Your task to perform on an android device: change your default location settings in chrome Image 0: 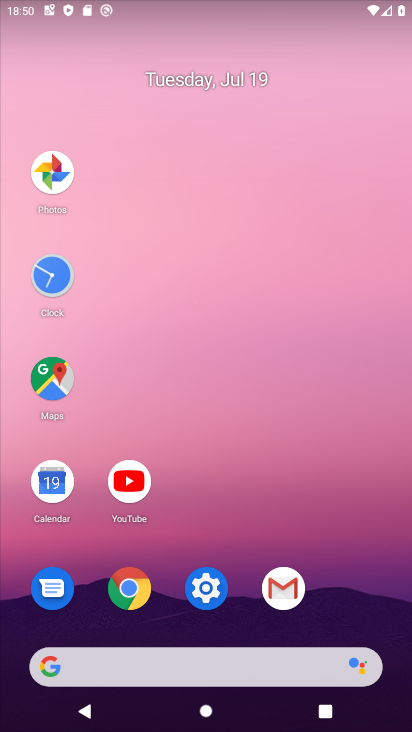
Step 0: click (126, 596)
Your task to perform on an android device: change your default location settings in chrome Image 1: 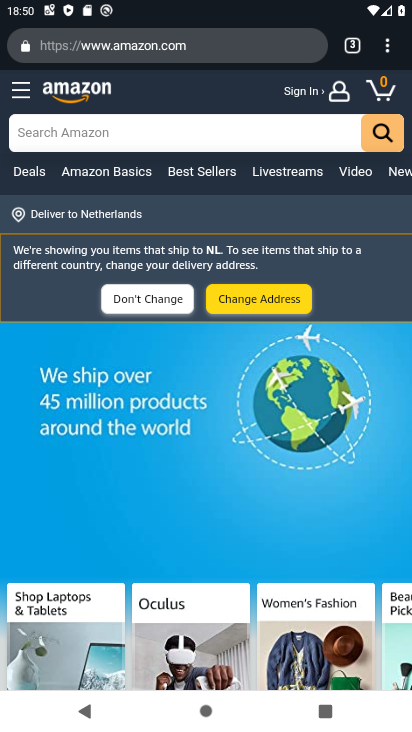
Step 1: click (392, 49)
Your task to perform on an android device: change your default location settings in chrome Image 2: 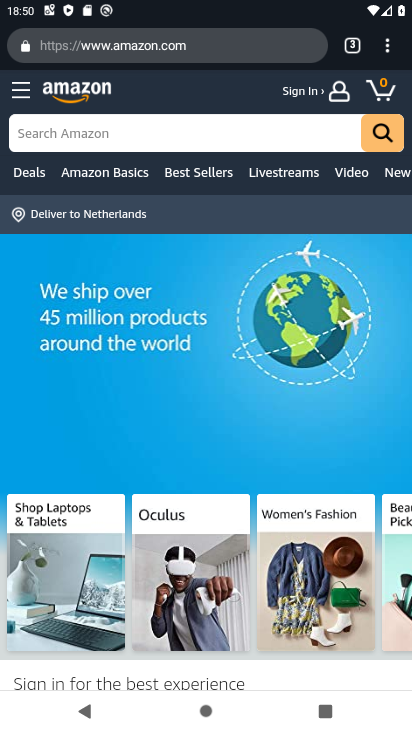
Step 2: click (388, 43)
Your task to perform on an android device: change your default location settings in chrome Image 3: 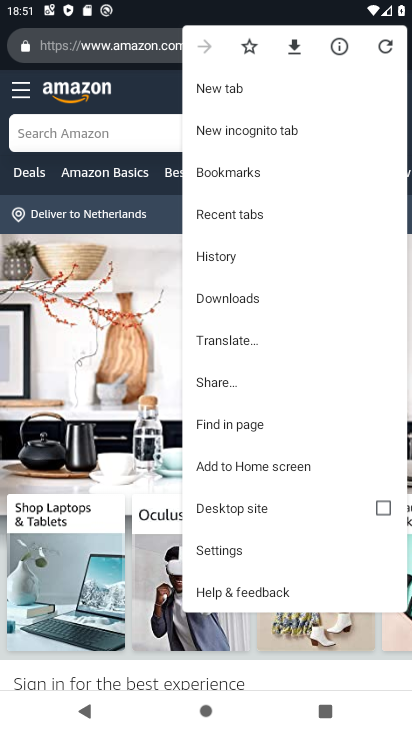
Step 3: click (235, 552)
Your task to perform on an android device: change your default location settings in chrome Image 4: 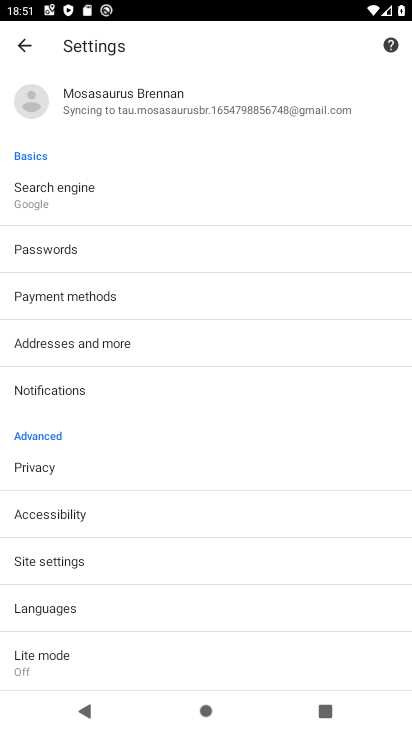
Step 4: click (55, 557)
Your task to perform on an android device: change your default location settings in chrome Image 5: 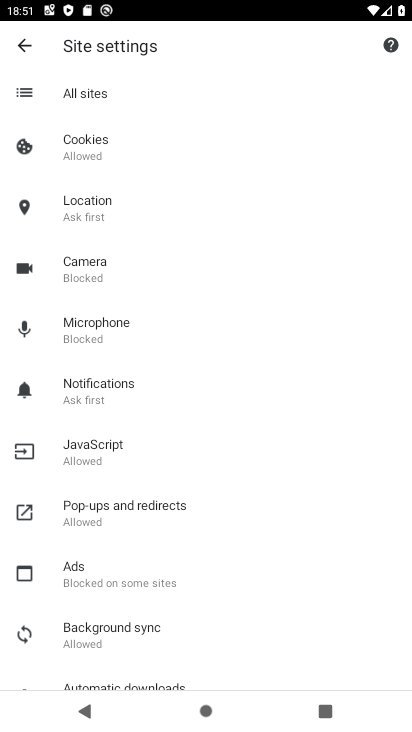
Step 5: click (87, 198)
Your task to perform on an android device: change your default location settings in chrome Image 6: 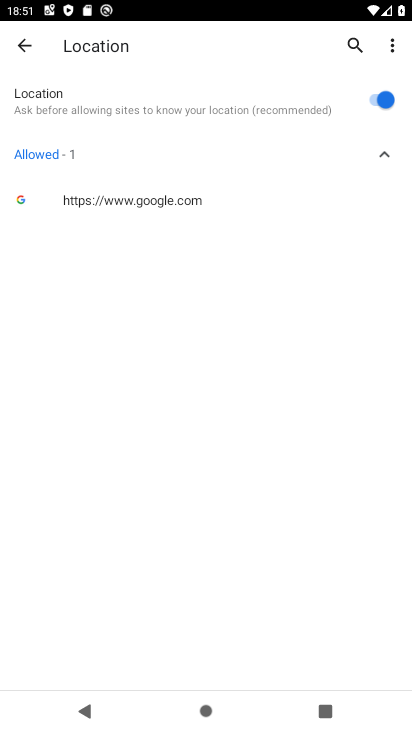
Step 6: click (376, 102)
Your task to perform on an android device: change your default location settings in chrome Image 7: 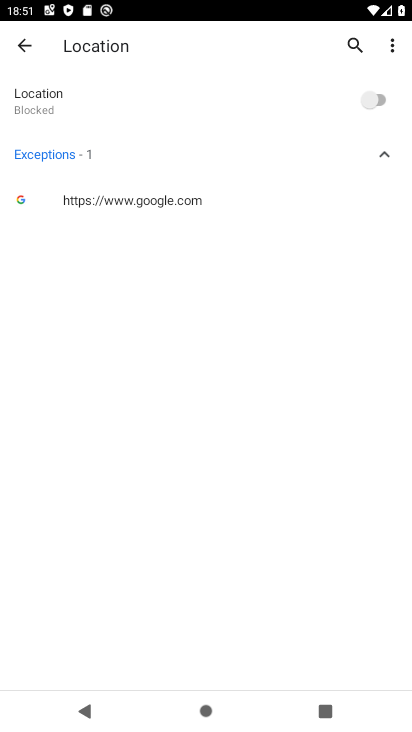
Step 7: task complete